Your task to perform on an android device: Open notification settings Image 0: 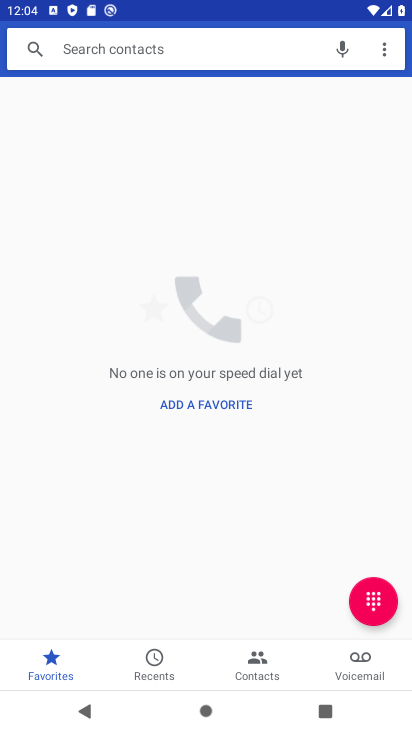
Step 0: press home button
Your task to perform on an android device: Open notification settings Image 1: 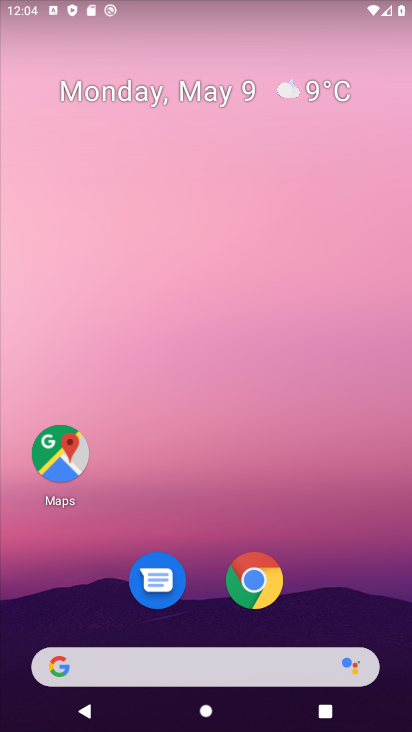
Step 1: drag from (341, 550) to (249, 97)
Your task to perform on an android device: Open notification settings Image 2: 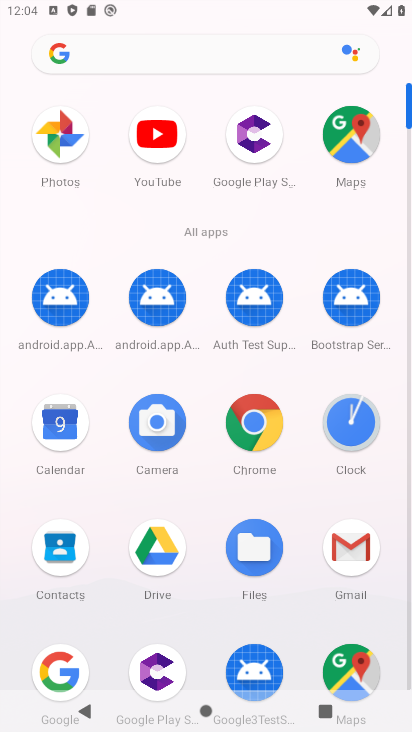
Step 2: drag from (290, 596) to (274, 149)
Your task to perform on an android device: Open notification settings Image 3: 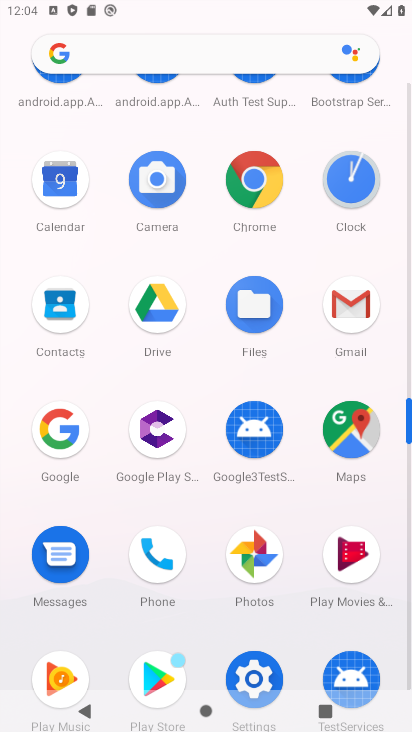
Step 3: click (240, 672)
Your task to perform on an android device: Open notification settings Image 4: 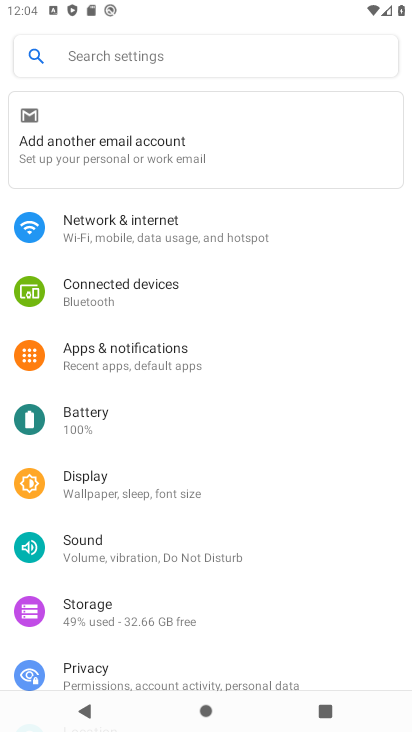
Step 4: click (136, 366)
Your task to perform on an android device: Open notification settings Image 5: 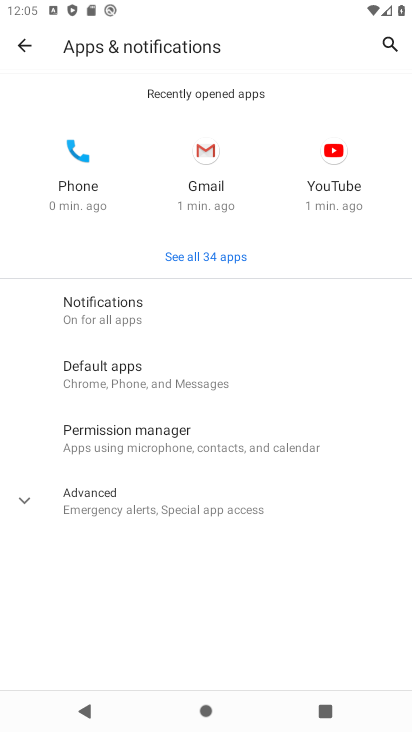
Step 5: task complete